Your task to perform on an android device: open a new tab in the chrome app Image 0: 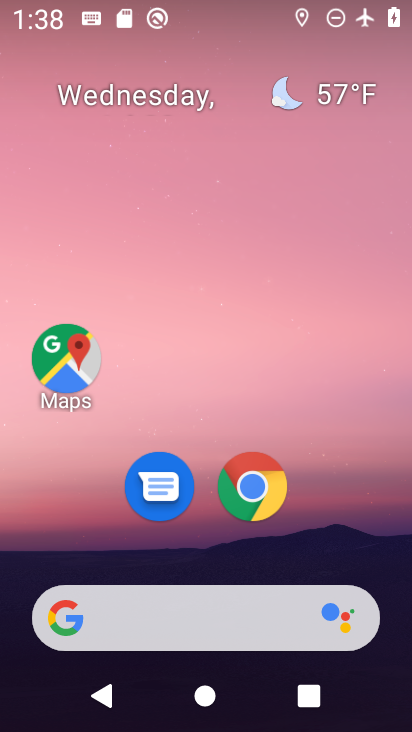
Step 0: drag from (358, 541) to (372, 137)
Your task to perform on an android device: open a new tab in the chrome app Image 1: 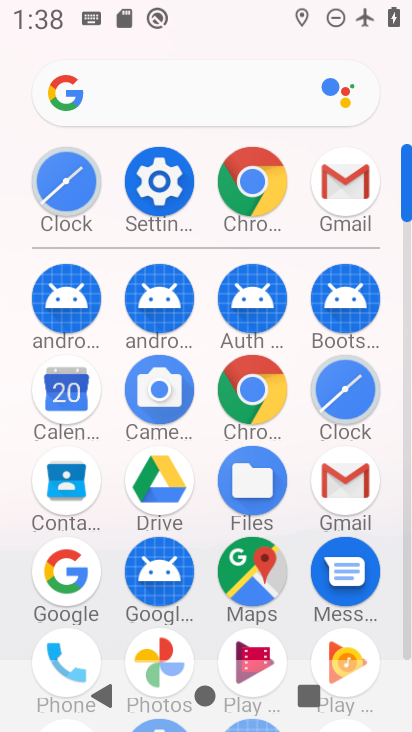
Step 1: click (266, 387)
Your task to perform on an android device: open a new tab in the chrome app Image 2: 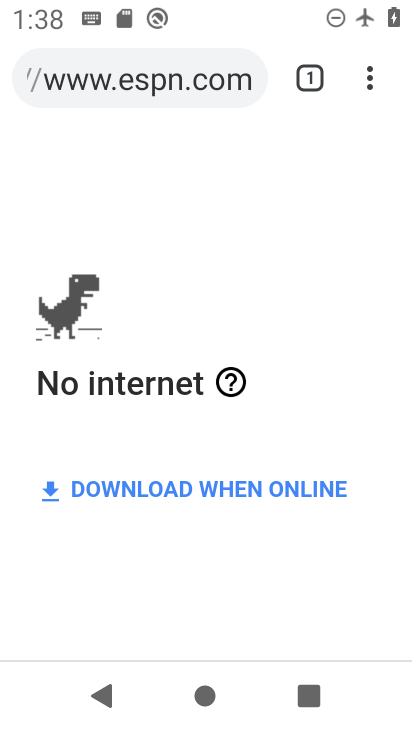
Step 2: click (365, 82)
Your task to perform on an android device: open a new tab in the chrome app Image 3: 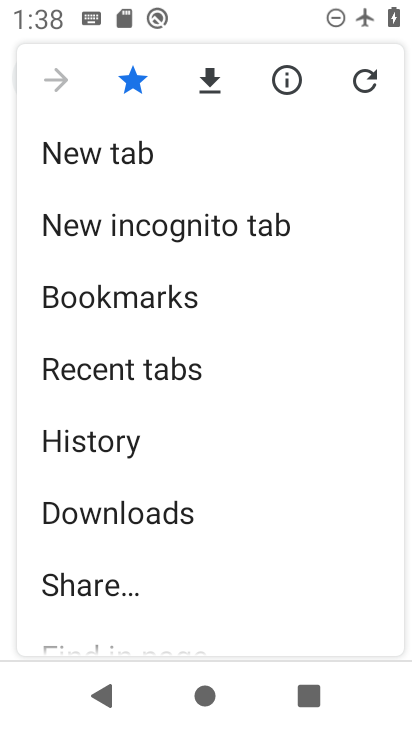
Step 3: click (154, 158)
Your task to perform on an android device: open a new tab in the chrome app Image 4: 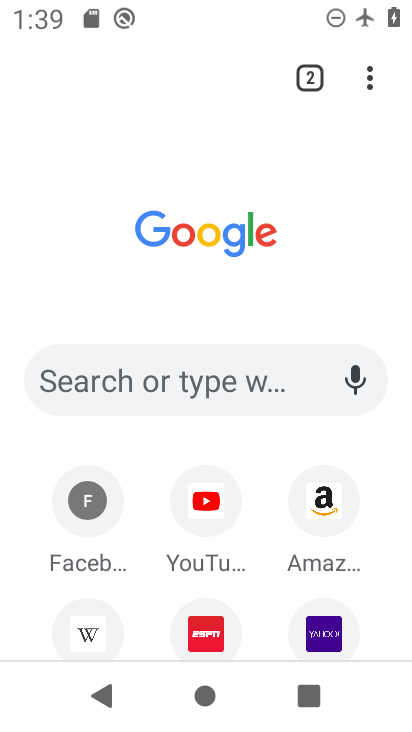
Step 4: task complete